Your task to perform on an android device: toggle notification dots Image 0: 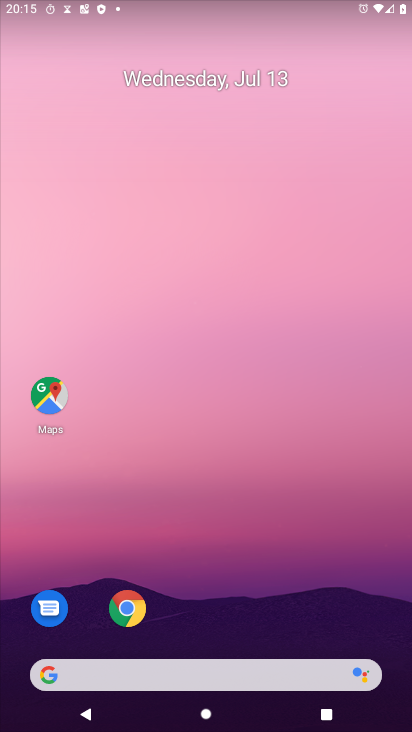
Step 0: drag from (209, 633) to (189, 51)
Your task to perform on an android device: toggle notification dots Image 1: 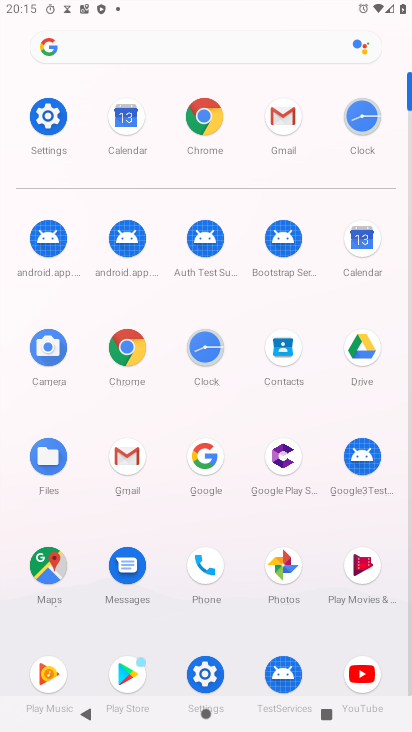
Step 1: click (47, 116)
Your task to perform on an android device: toggle notification dots Image 2: 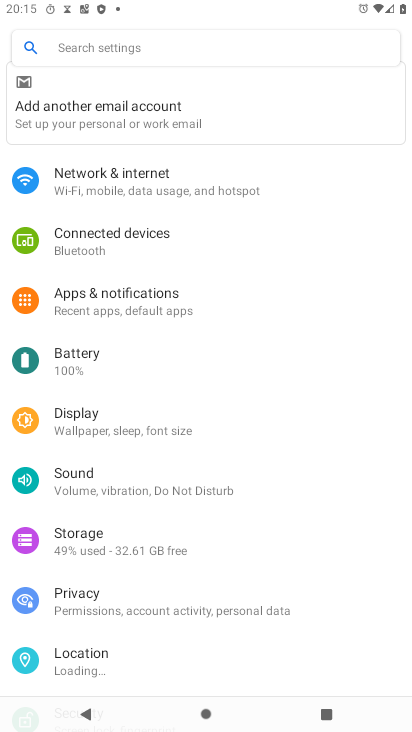
Step 2: click (157, 297)
Your task to perform on an android device: toggle notification dots Image 3: 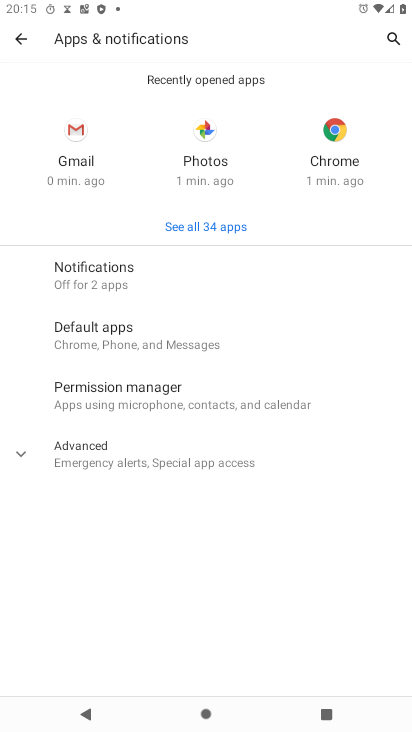
Step 3: click (160, 281)
Your task to perform on an android device: toggle notification dots Image 4: 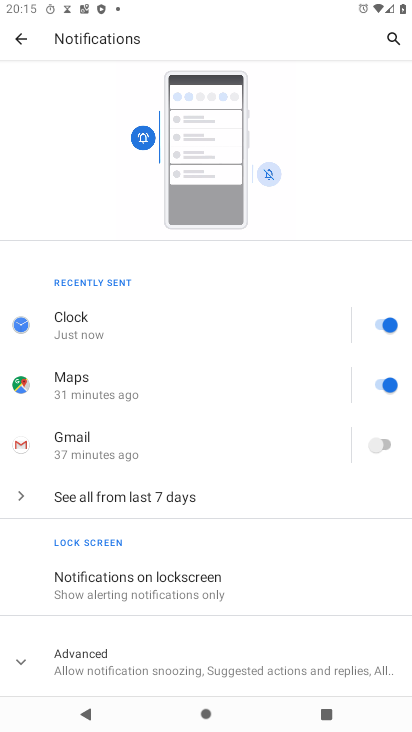
Step 4: click (119, 663)
Your task to perform on an android device: toggle notification dots Image 5: 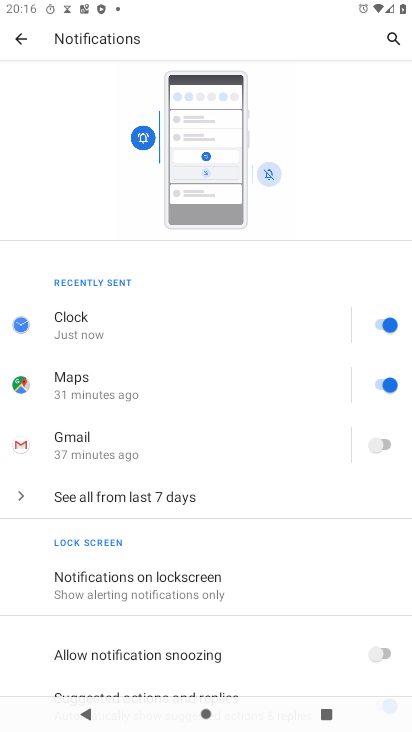
Step 5: drag from (189, 625) to (142, 315)
Your task to perform on an android device: toggle notification dots Image 6: 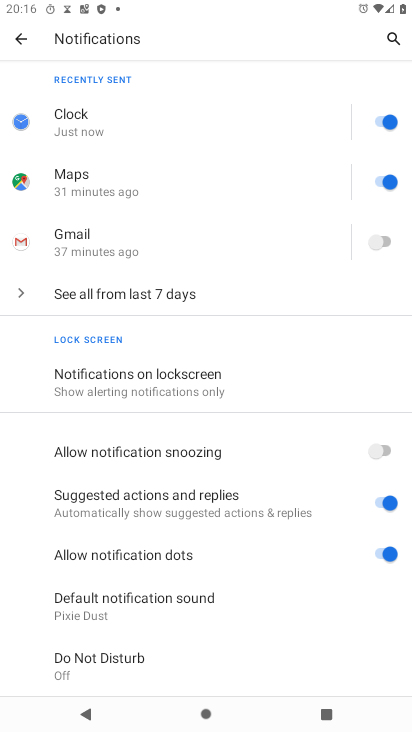
Step 6: click (376, 547)
Your task to perform on an android device: toggle notification dots Image 7: 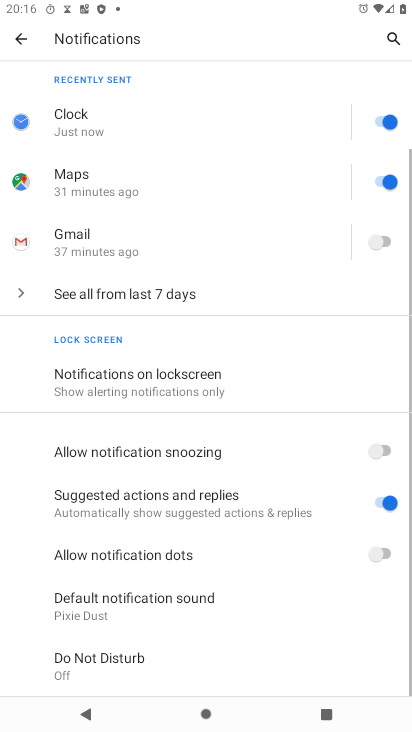
Step 7: task complete